Your task to perform on an android device: Open Google Maps and go to "Timeline" Image 0: 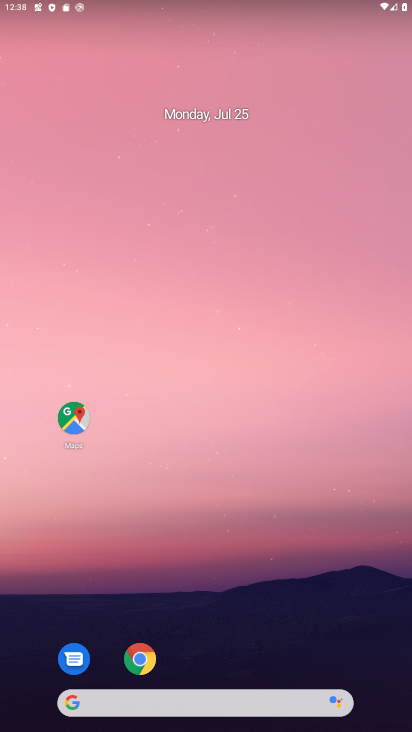
Step 0: drag from (236, 302) to (278, 55)
Your task to perform on an android device: Open Google Maps and go to "Timeline" Image 1: 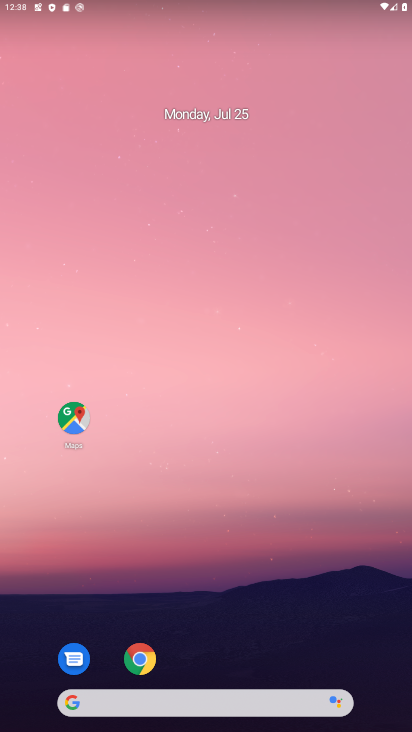
Step 1: drag from (296, 612) to (335, 0)
Your task to perform on an android device: Open Google Maps and go to "Timeline" Image 2: 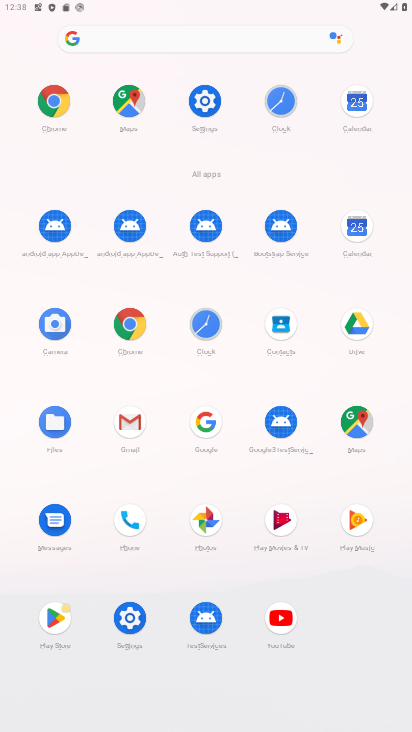
Step 2: click (360, 417)
Your task to perform on an android device: Open Google Maps and go to "Timeline" Image 3: 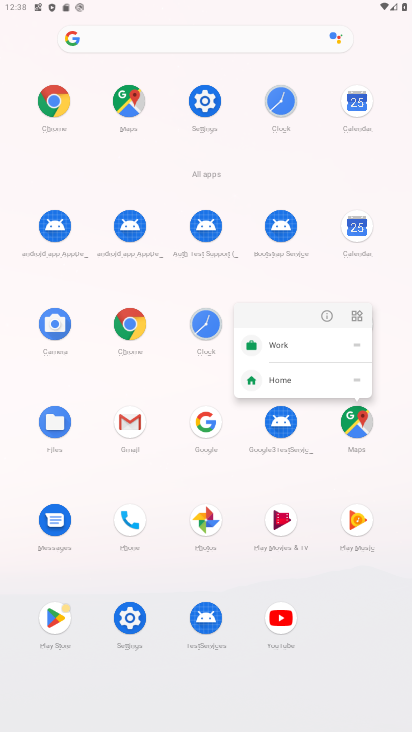
Step 3: click (360, 418)
Your task to perform on an android device: Open Google Maps and go to "Timeline" Image 4: 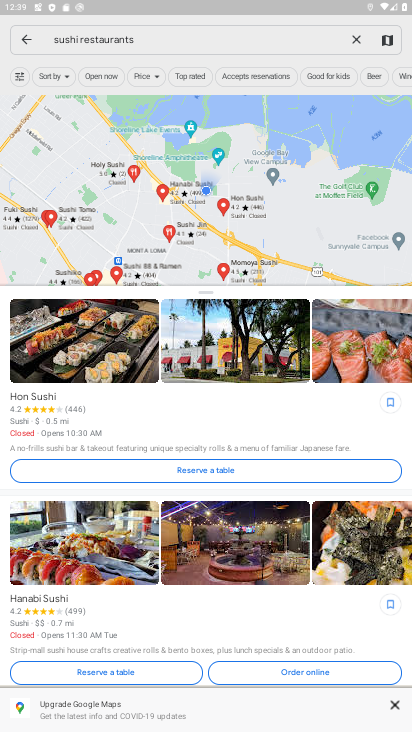
Step 4: click (22, 37)
Your task to perform on an android device: Open Google Maps and go to "Timeline" Image 5: 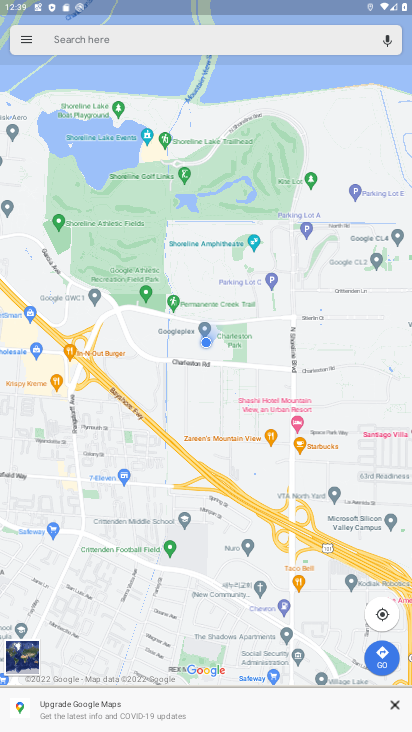
Step 5: click (13, 37)
Your task to perform on an android device: Open Google Maps and go to "Timeline" Image 6: 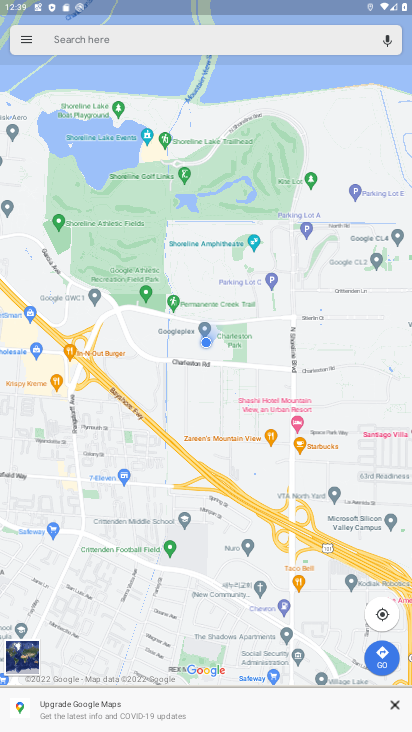
Step 6: click (24, 37)
Your task to perform on an android device: Open Google Maps and go to "Timeline" Image 7: 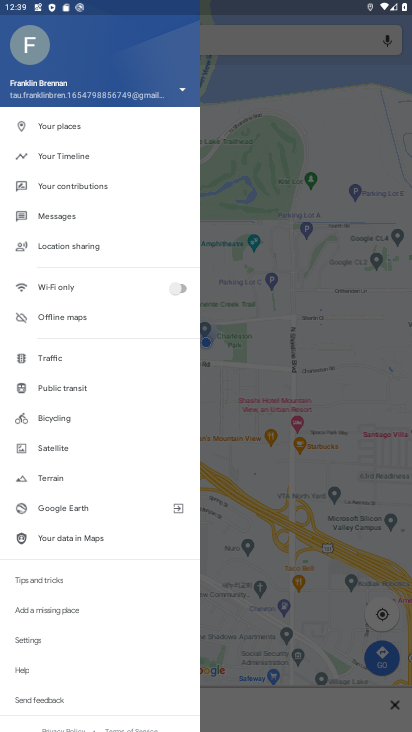
Step 7: click (69, 155)
Your task to perform on an android device: Open Google Maps and go to "Timeline" Image 8: 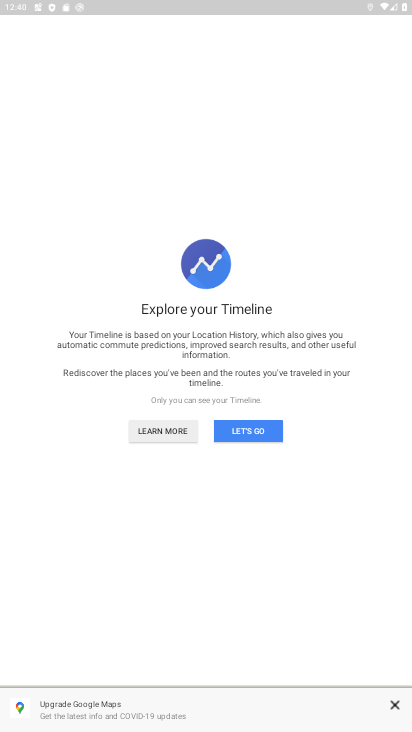
Step 8: task complete